Your task to perform on an android device: Show me recent news Image 0: 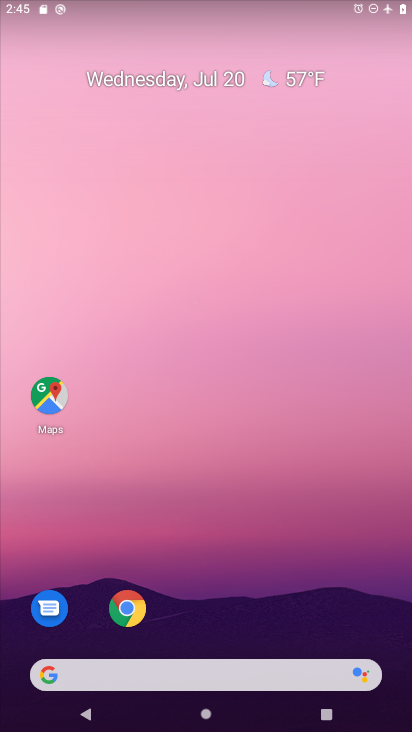
Step 0: click (174, 678)
Your task to perform on an android device: Show me recent news Image 1: 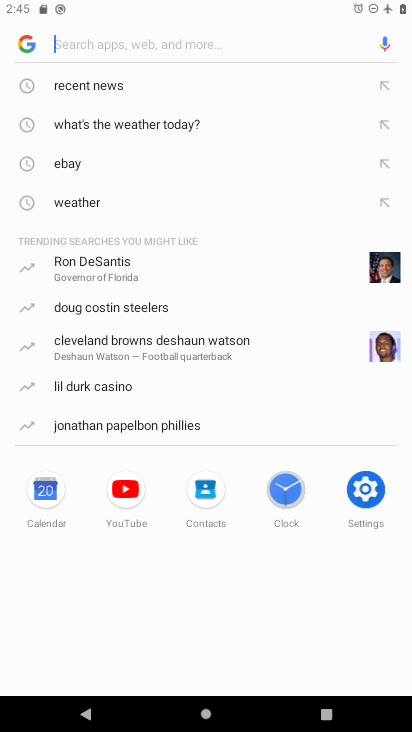
Step 1: click (129, 79)
Your task to perform on an android device: Show me recent news Image 2: 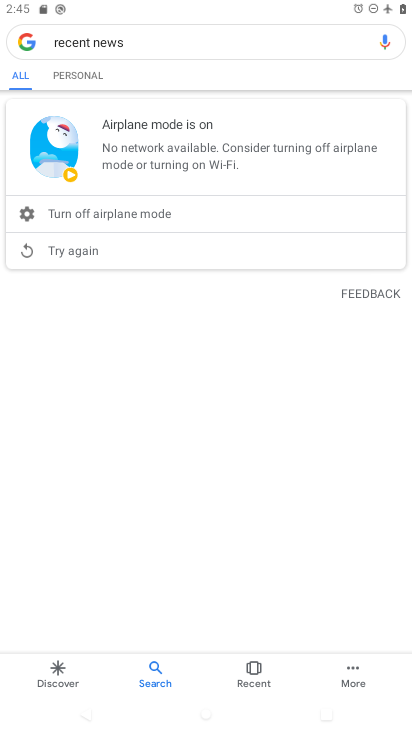
Step 2: task complete